Your task to perform on an android device: Open battery settings Image 0: 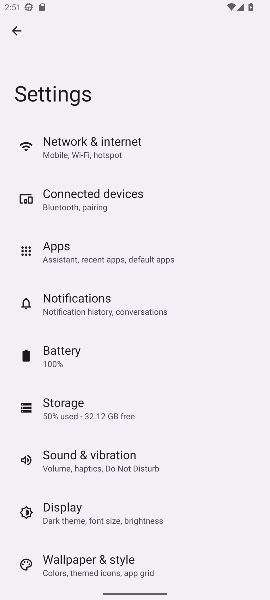
Step 0: click (63, 355)
Your task to perform on an android device: Open battery settings Image 1: 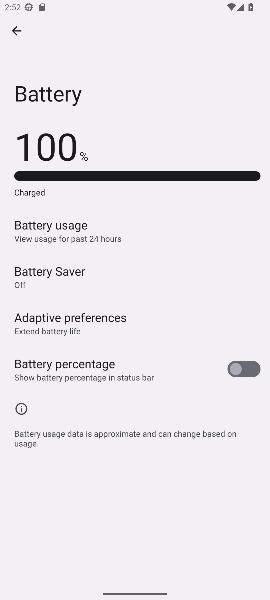
Step 1: task complete